Your task to perform on an android device: allow notifications from all sites in the chrome app Image 0: 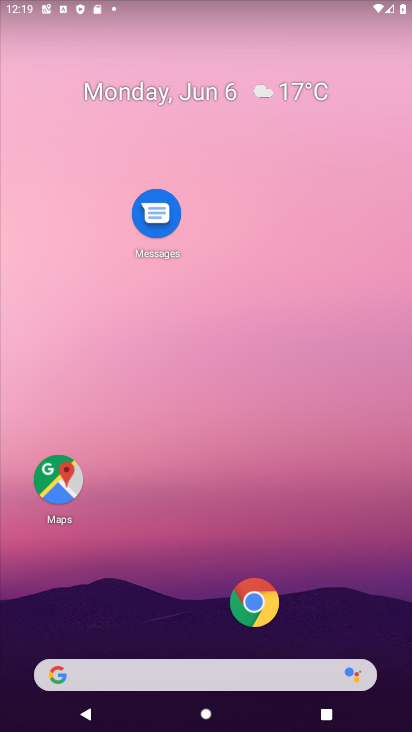
Step 0: click (260, 605)
Your task to perform on an android device: allow notifications from all sites in the chrome app Image 1: 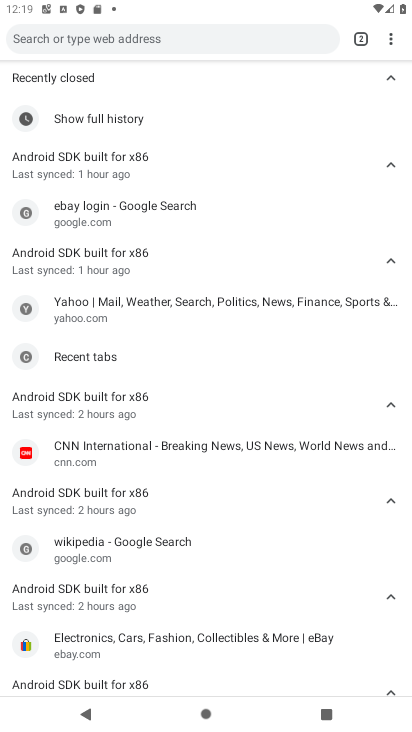
Step 1: click (390, 51)
Your task to perform on an android device: allow notifications from all sites in the chrome app Image 2: 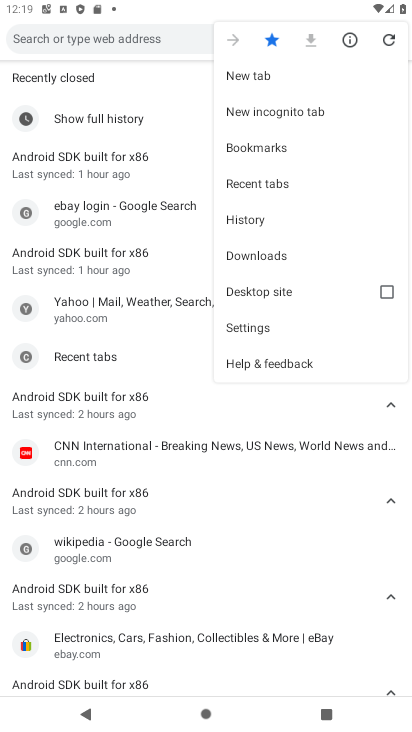
Step 2: task complete